Your task to perform on an android device: Go to privacy settings Image 0: 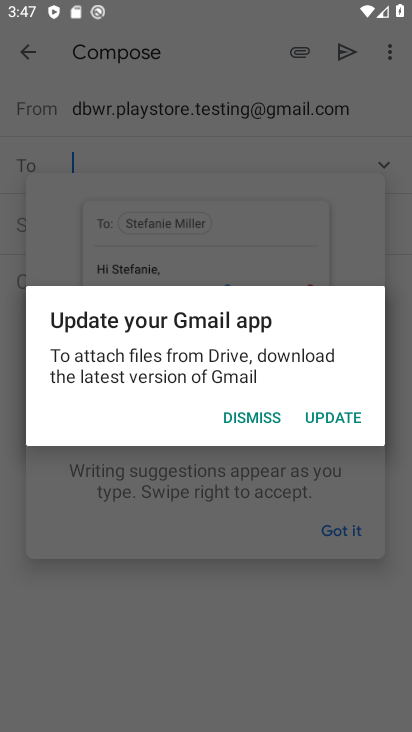
Step 0: click (248, 412)
Your task to perform on an android device: Go to privacy settings Image 1: 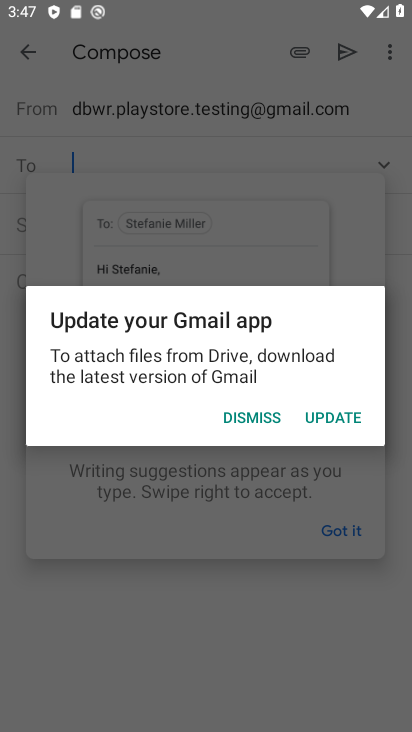
Step 1: click (246, 410)
Your task to perform on an android device: Go to privacy settings Image 2: 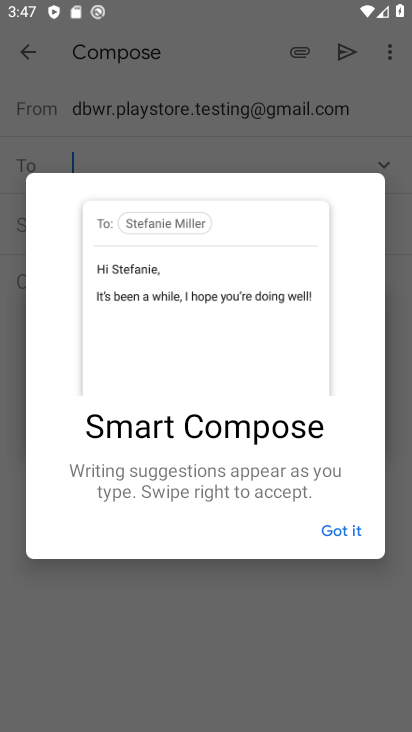
Step 2: click (341, 537)
Your task to perform on an android device: Go to privacy settings Image 3: 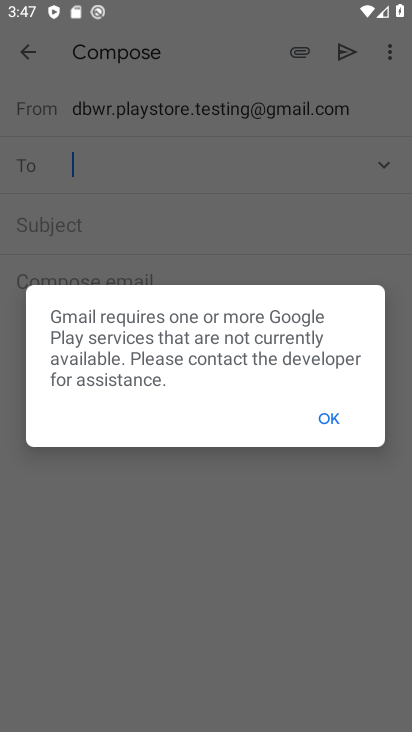
Step 3: click (336, 409)
Your task to perform on an android device: Go to privacy settings Image 4: 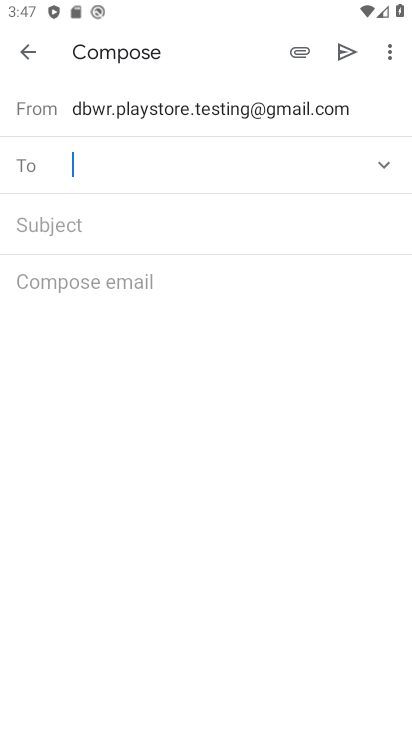
Step 4: click (26, 57)
Your task to perform on an android device: Go to privacy settings Image 5: 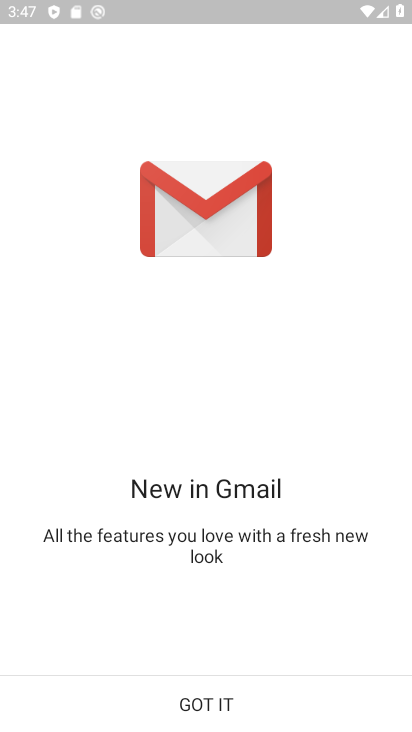
Step 5: click (221, 691)
Your task to perform on an android device: Go to privacy settings Image 6: 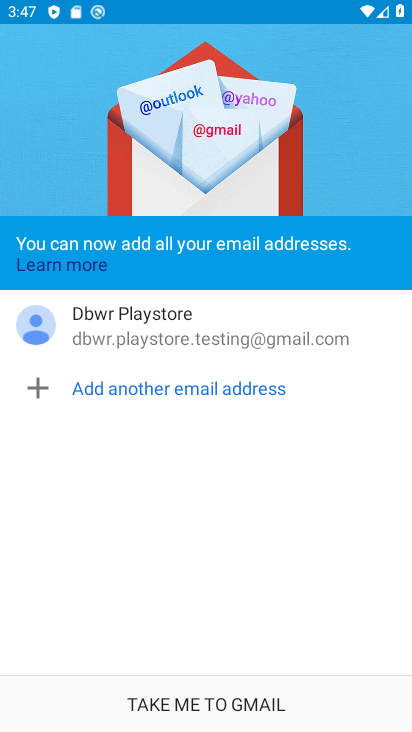
Step 6: click (195, 707)
Your task to perform on an android device: Go to privacy settings Image 7: 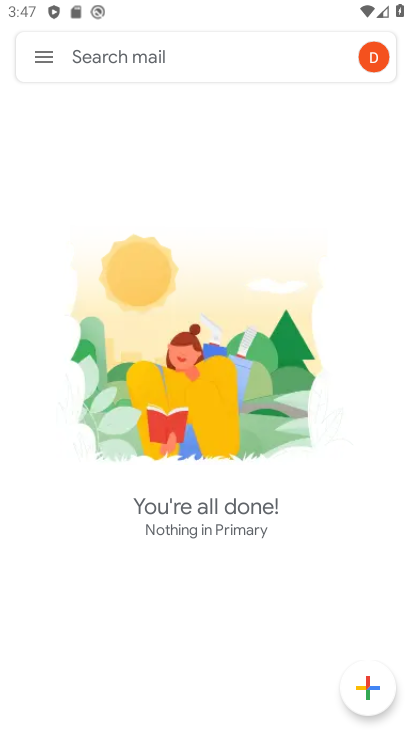
Step 7: press home button
Your task to perform on an android device: Go to privacy settings Image 8: 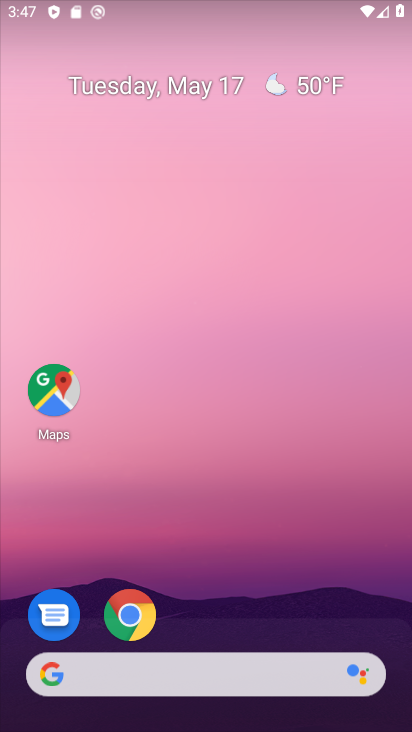
Step 8: drag from (233, 627) to (149, 177)
Your task to perform on an android device: Go to privacy settings Image 9: 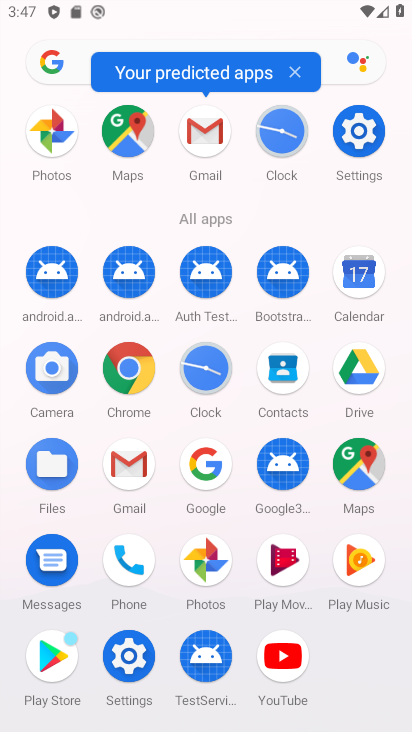
Step 9: click (358, 127)
Your task to perform on an android device: Go to privacy settings Image 10: 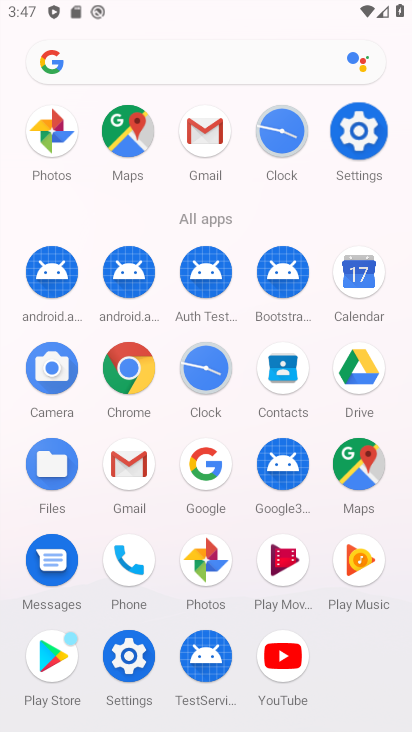
Step 10: click (358, 128)
Your task to perform on an android device: Go to privacy settings Image 11: 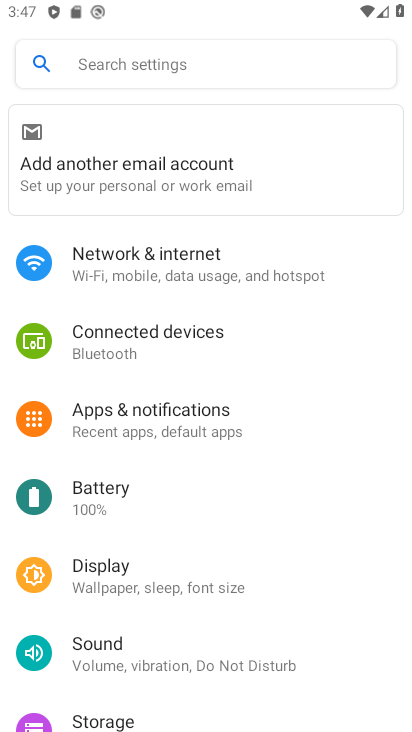
Step 11: drag from (144, 591) to (86, 221)
Your task to perform on an android device: Go to privacy settings Image 12: 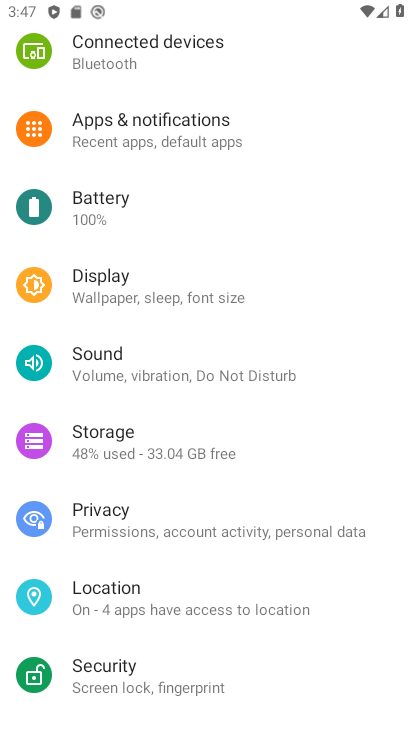
Step 12: drag from (213, 292) to (179, 3)
Your task to perform on an android device: Go to privacy settings Image 13: 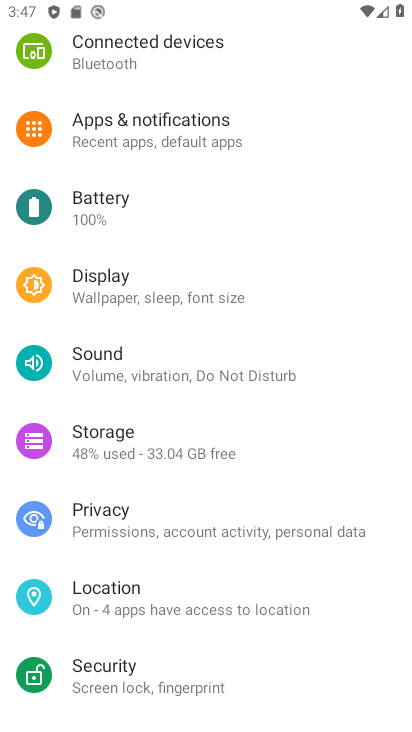
Step 13: click (121, 638)
Your task to perform on an android device: Go to privacy settings Image 14: 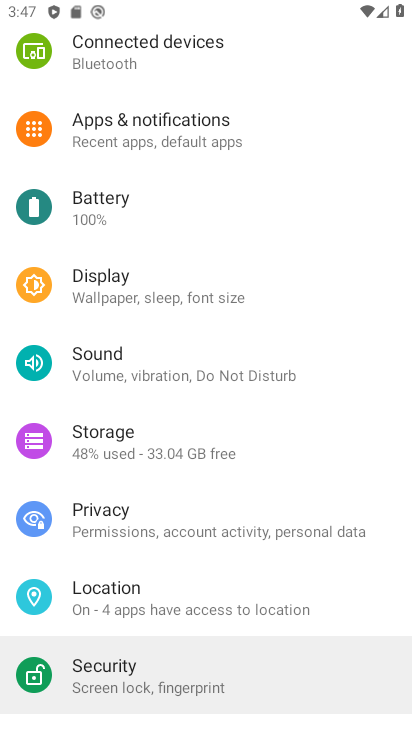
Step 14: click (120, 639)
Your task to perform on an android device: Go to privacy settings Image 15: 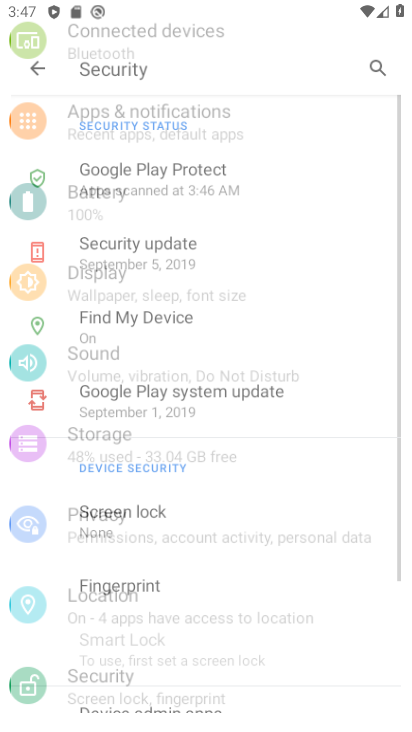
Step 15: click (126, 635)
Your task to perform on an android device: Go to privacy settings Image 16: 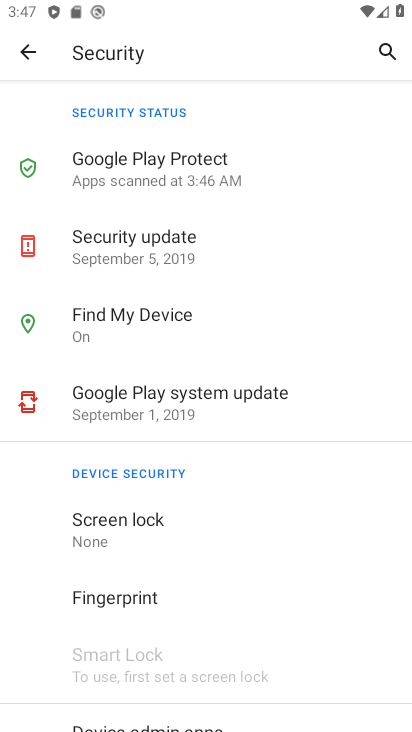
Step 16: click (23, 54)
Your task to perform on an android device: Go to privacy settings Image 17: 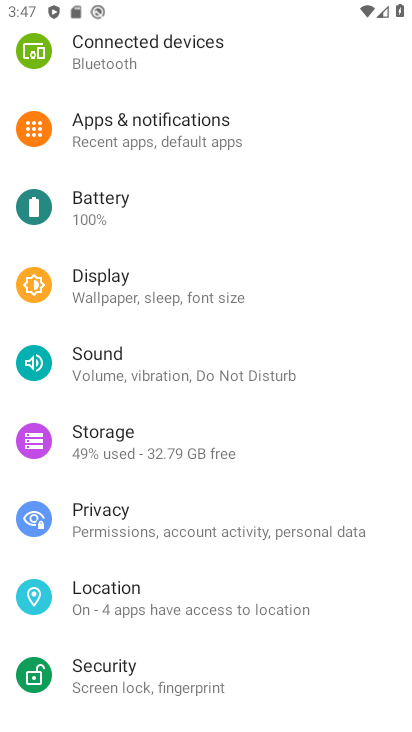
Step 17: click (105, 511)
Your task to perform on an android device: Go to privacy settings Image 18: 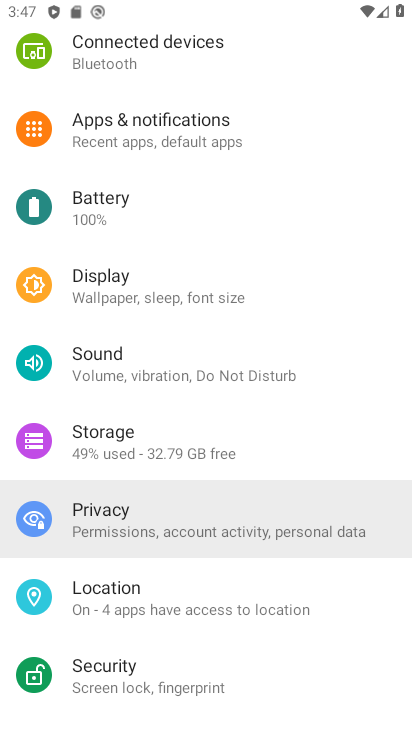
Step 18: click (105, 511)
Your task to perform on an android device: Go to privacy settings Image 19: 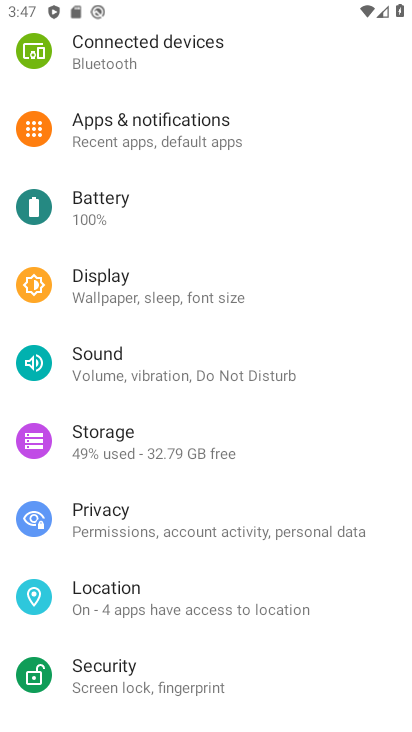
Step 19: click (107, 515)
Your task to perform on an android device: Go to privacy settings Image 20: 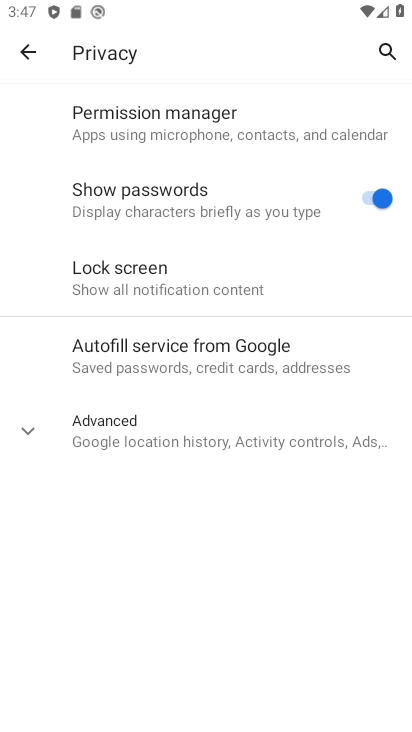
Step 20: click (107, 515)
Your task to perform on an android device: Go to privacy settings Image 21: 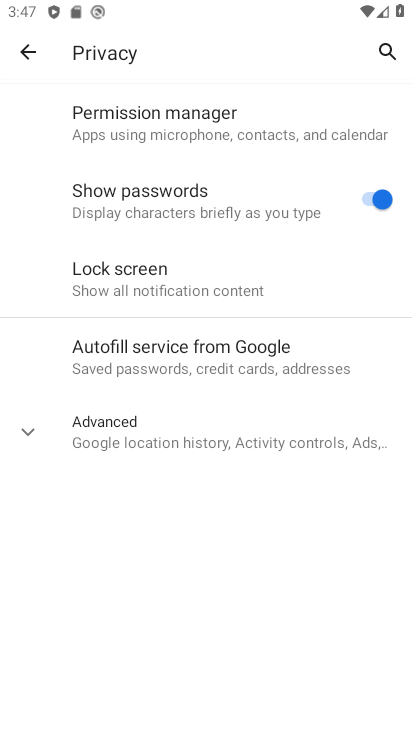
Step 21: task complete